Your task to perform on an android device: Add lg ultragear to the cart on bestbuy Image 0: 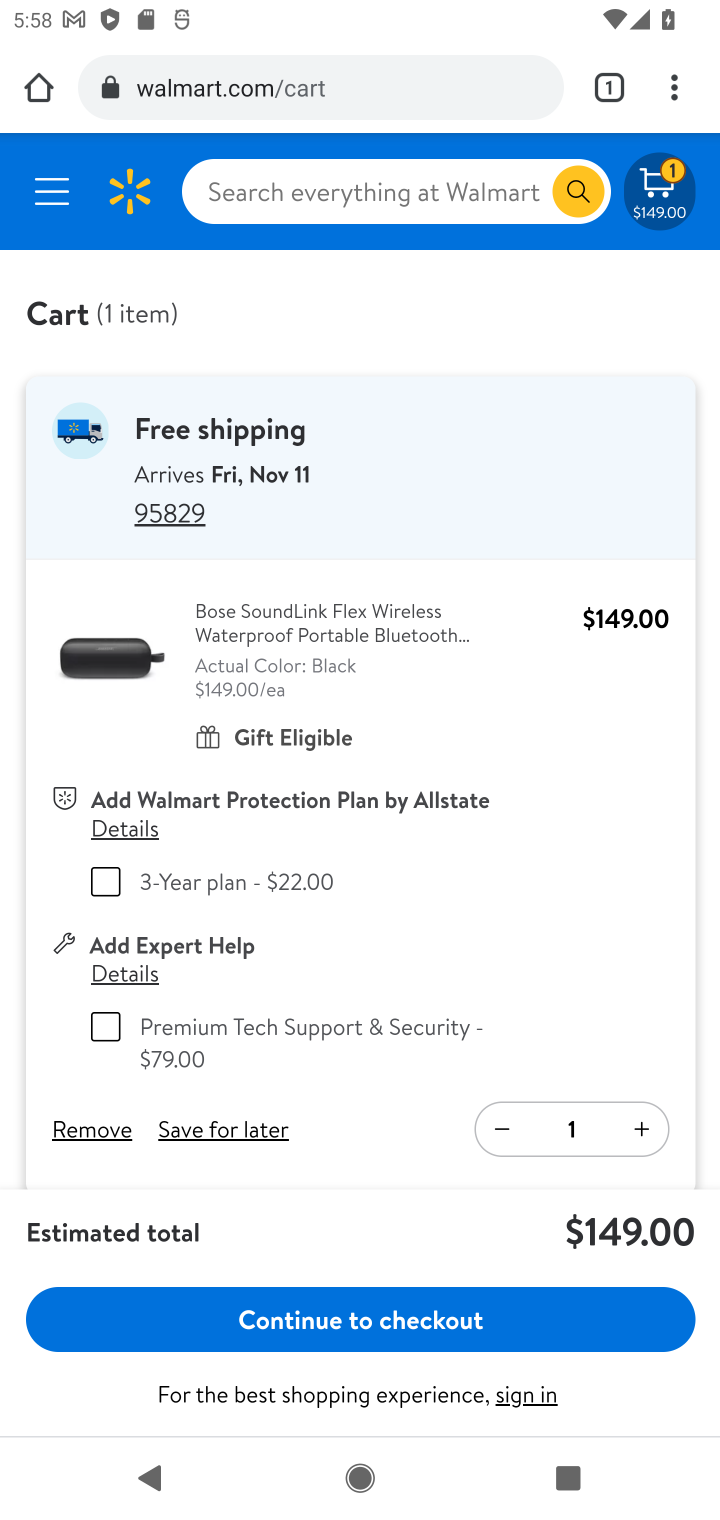
Step 0: click (393, 62)
Your task to perform on an android device: Add lg ultragear to the cart on bestbuy Image 1: 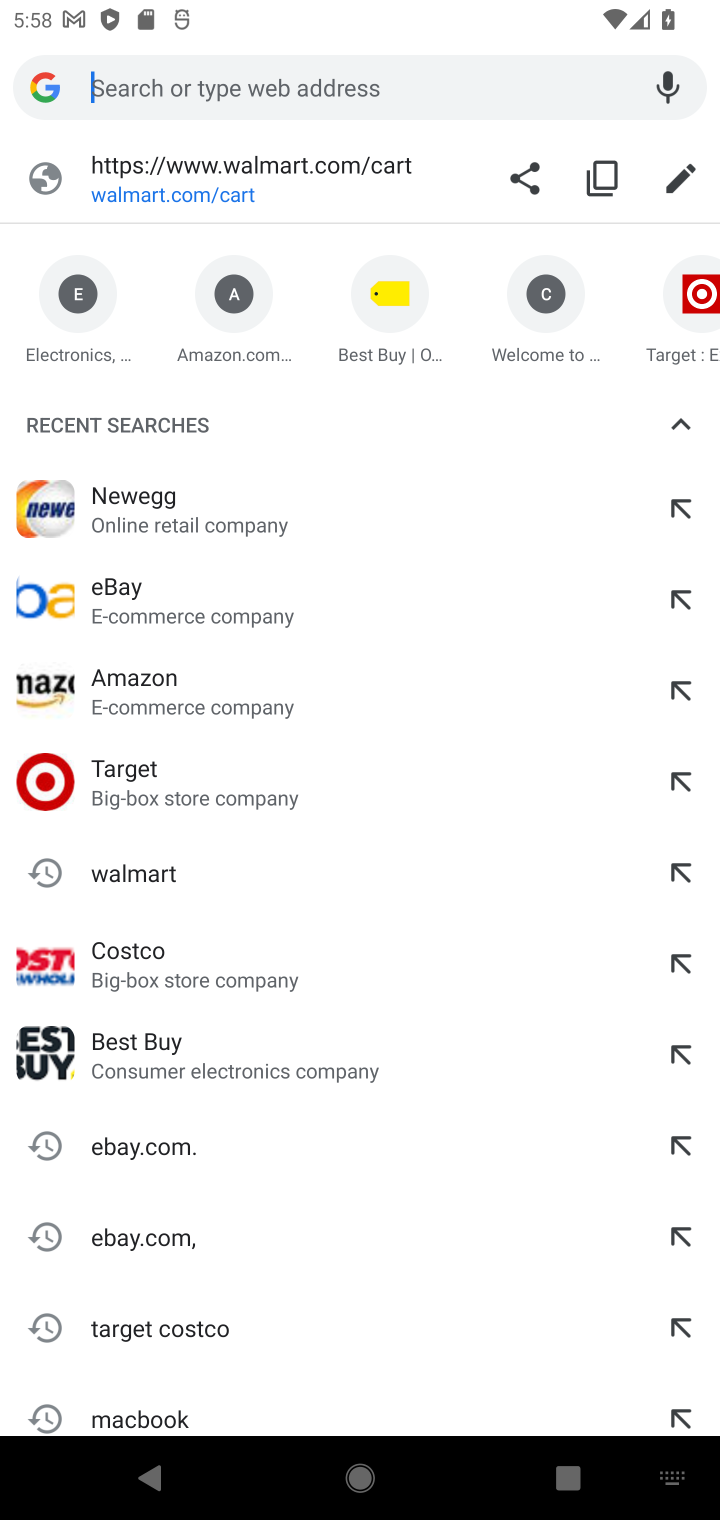
Step 1: type "bestbuy.com"
Your task to perform on an android device: Add lg ultragear to the cart on bestbuy Image 2: 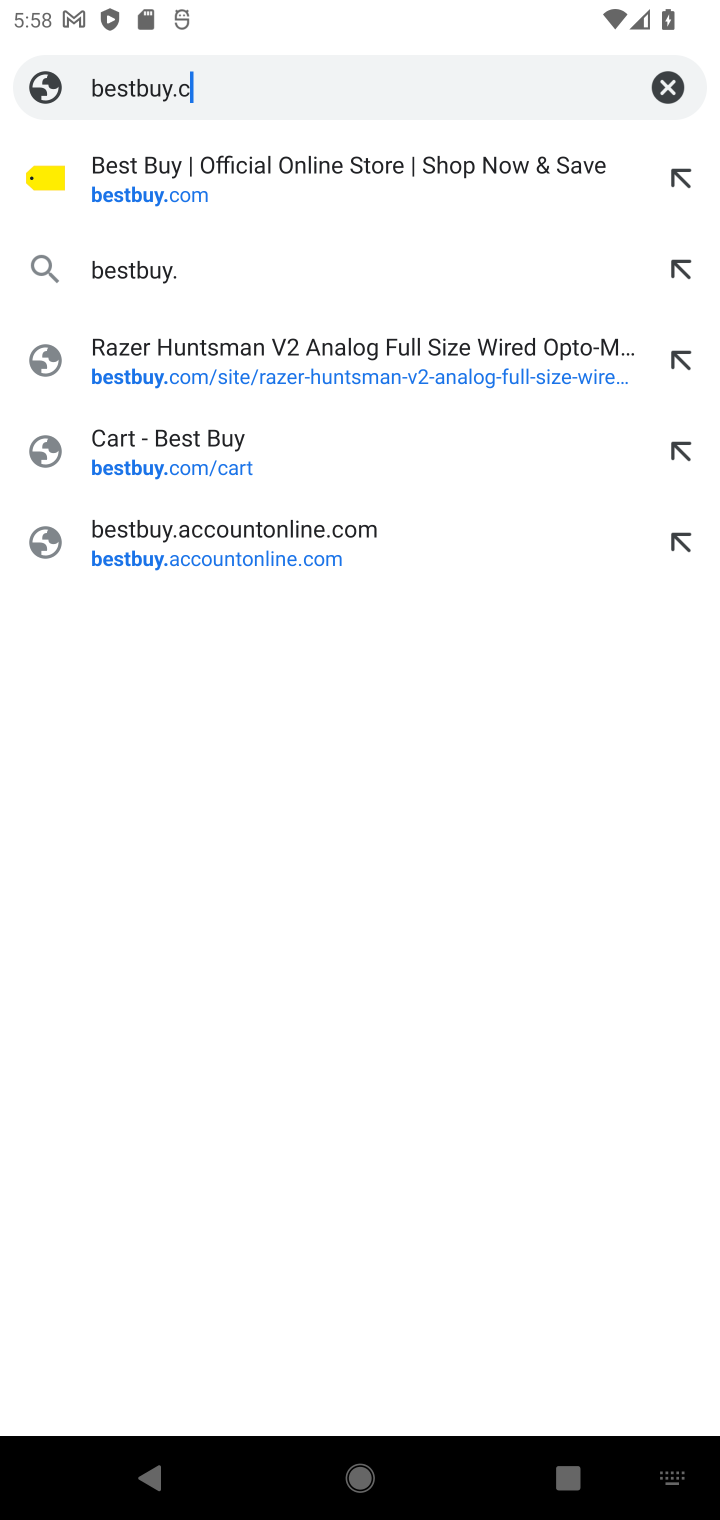
Step 2: press enter
Your task to perform on an android device: Add lg ultragear to the cart on bestbuy Image 3: 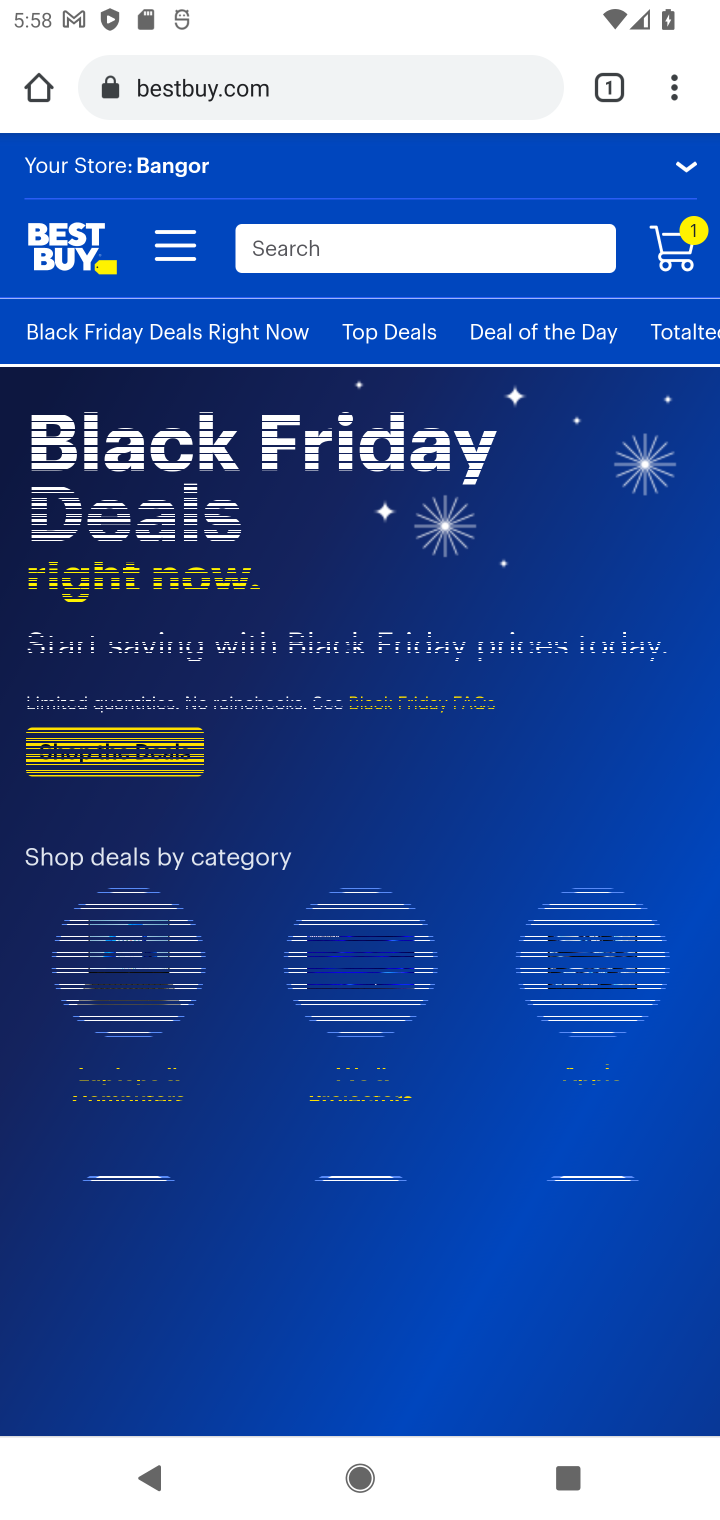
Step 3: click (424, 243)
Your task to perform on an android device: Add lg ultragear to the cart on bestbuy Image 4: 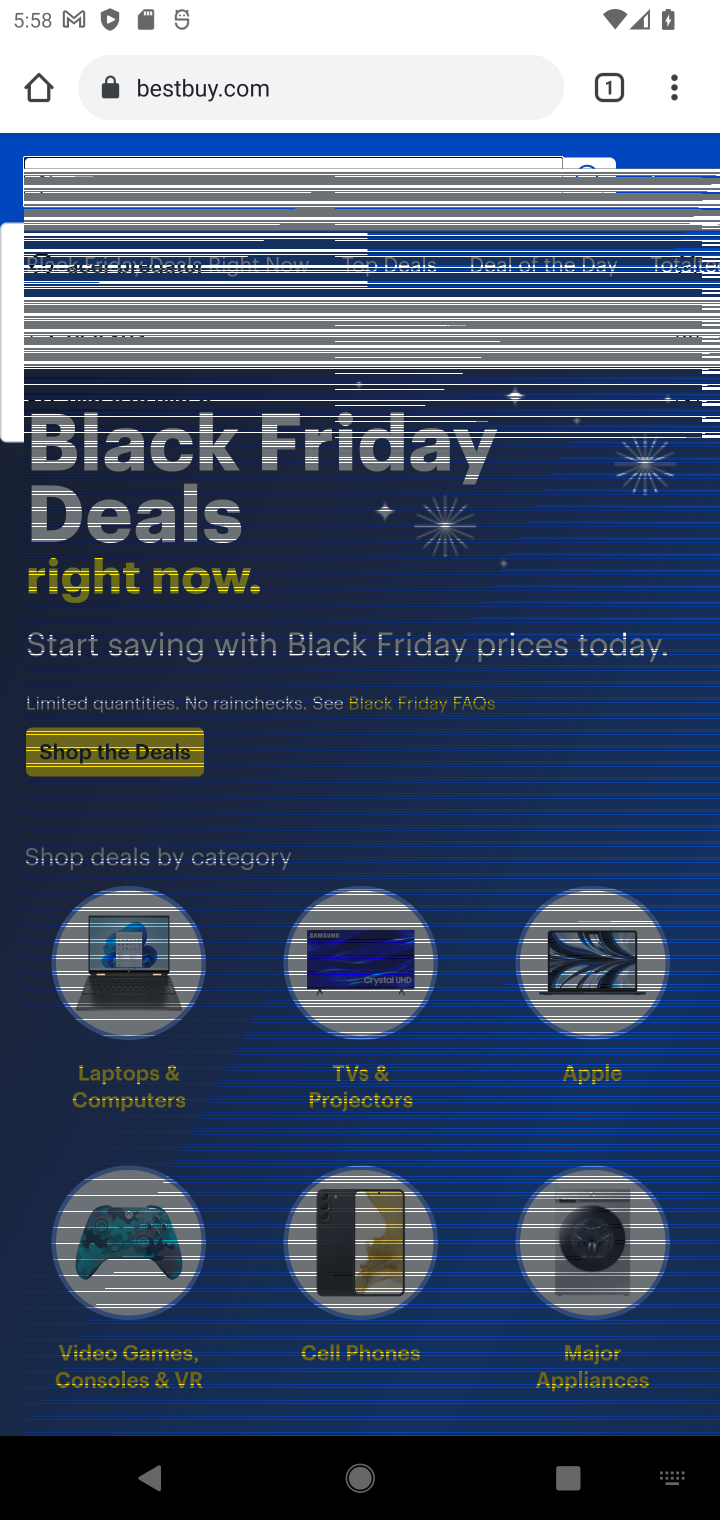
Step 4: type "lg ultragear"
Your task to perform on an android device: Add lg ultragear to the cart on bestbuy Image 5: 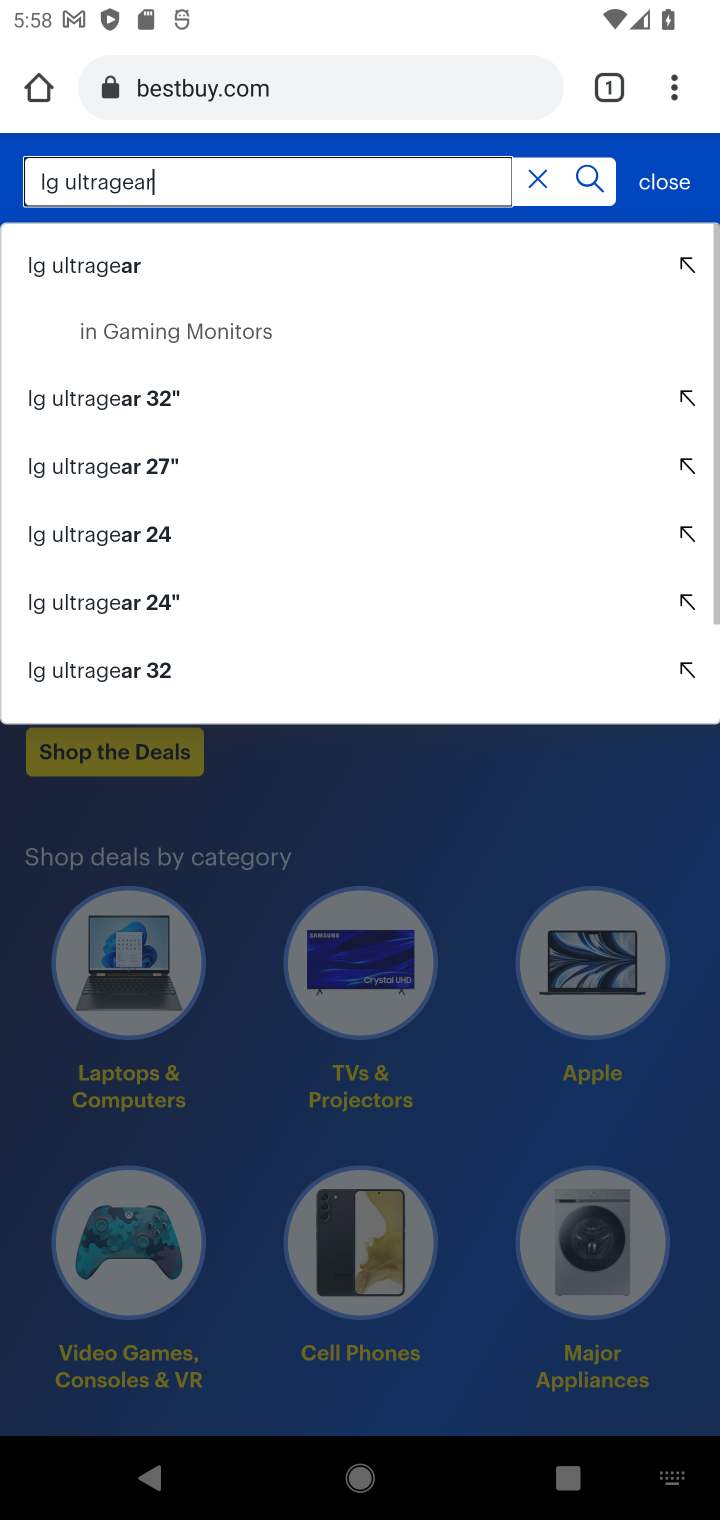
Step 5: press enter
Your task to perform on an android device: Add lg ultragear to the cart on bestbuy Image 6: 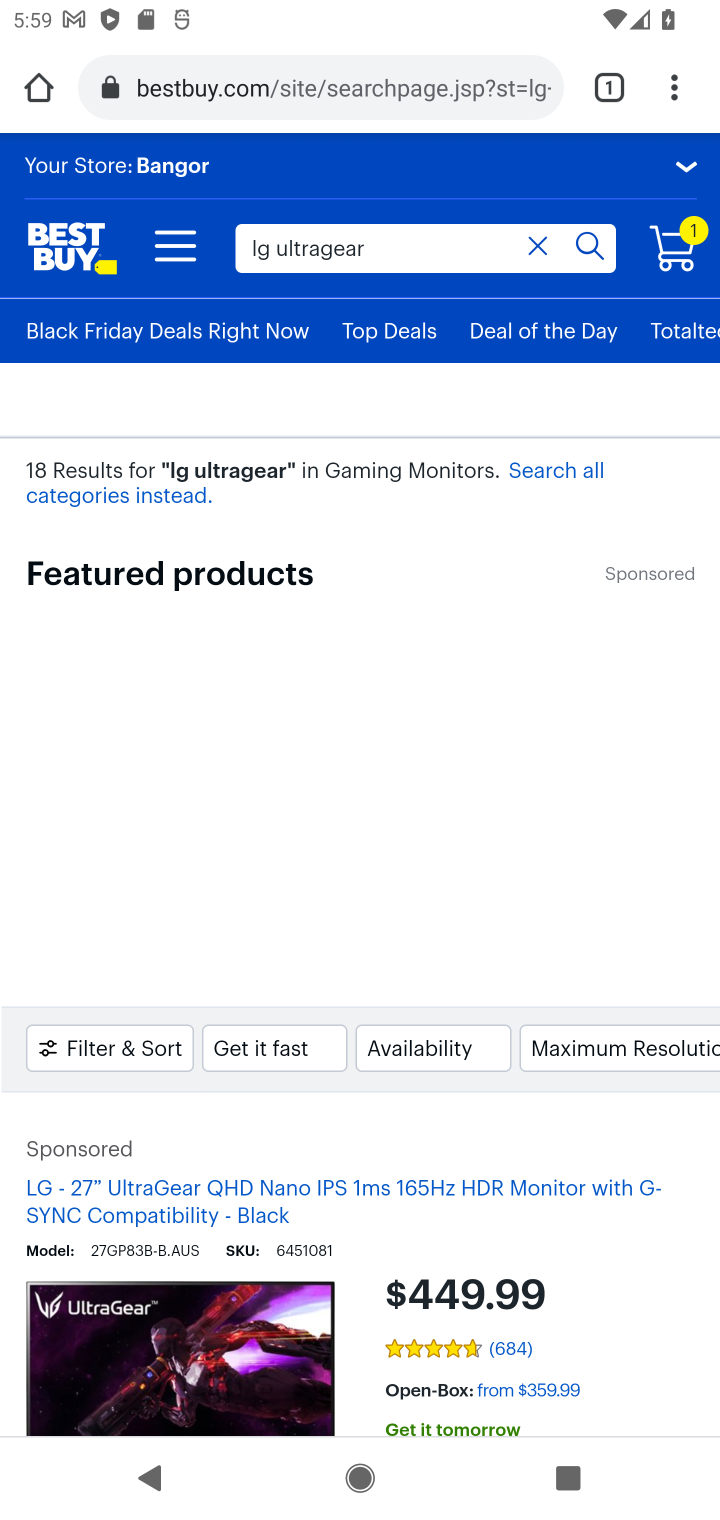
Step 6: drag from (416, 1103) to (341, 295)
Your task to perform on an android device: Add lg ultragear to the cart on bestbuy Image 7: 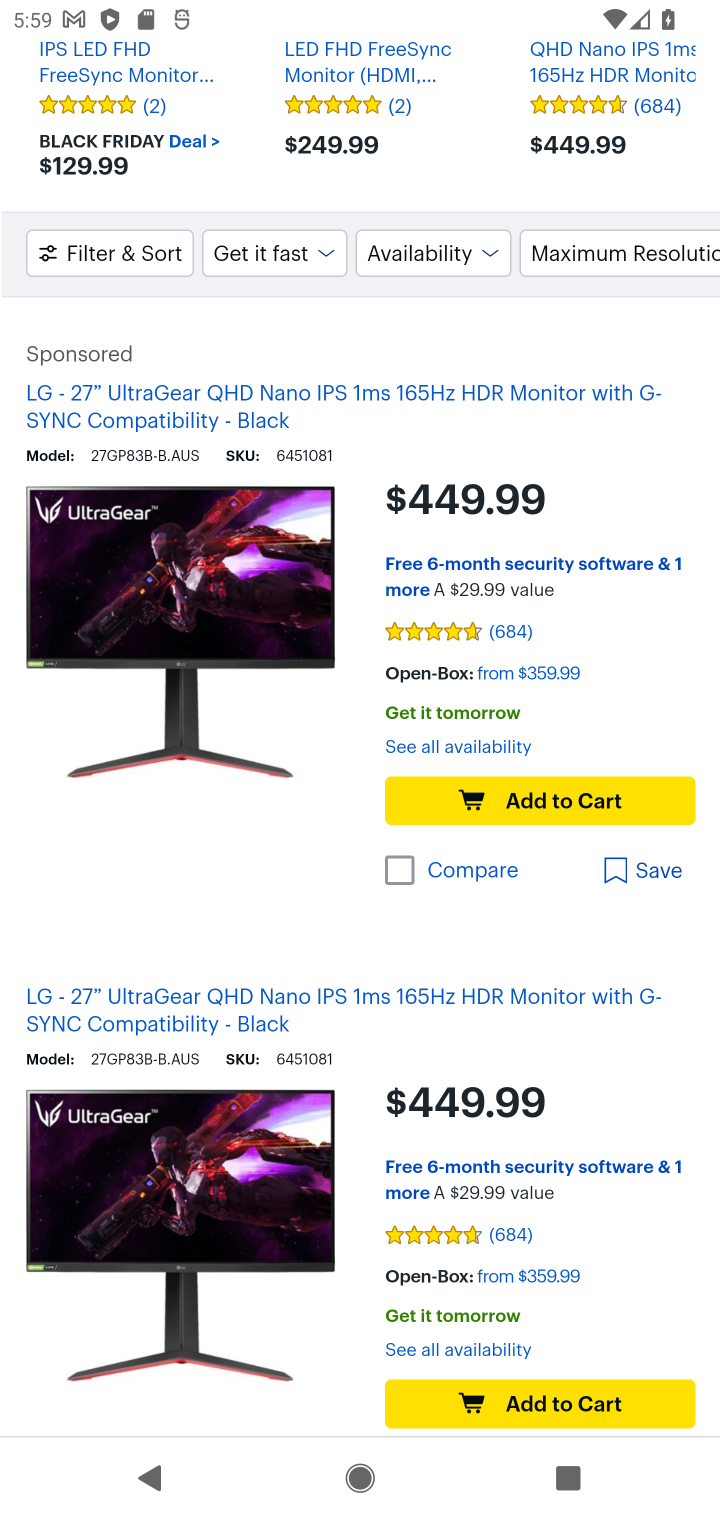
Step 7: click (567, 1355)
Your task to perform on an android device: Add lg ultragear to the cart on bestbuy Image 8: 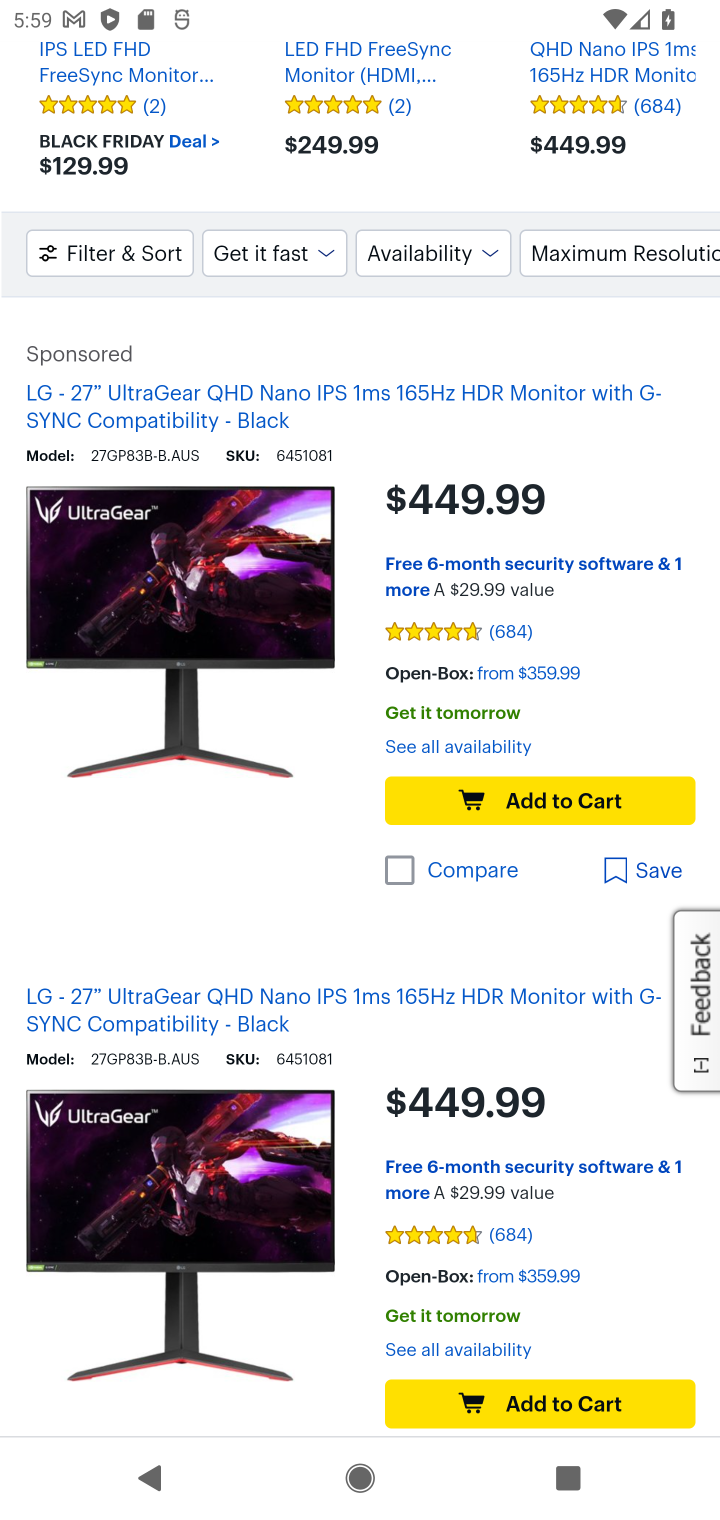
Step 8: click (529, 1404)
Your task to perform on an android device: Add lg ultragear to the cart on bestbuy Image 9: 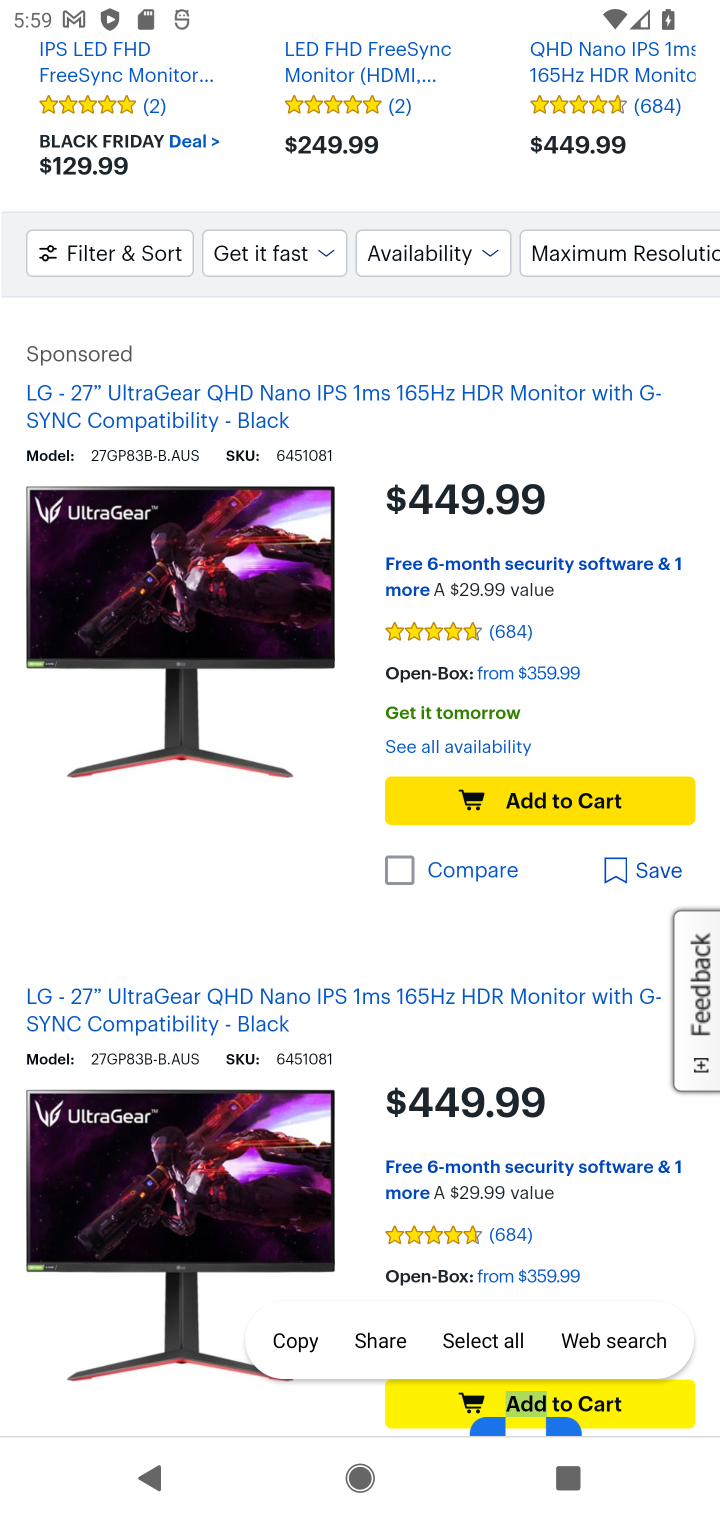
Step 9: click (529, 1404)
Your task to perform on an android device: Add lg ultragear to the cart on bestbuy Image 10: 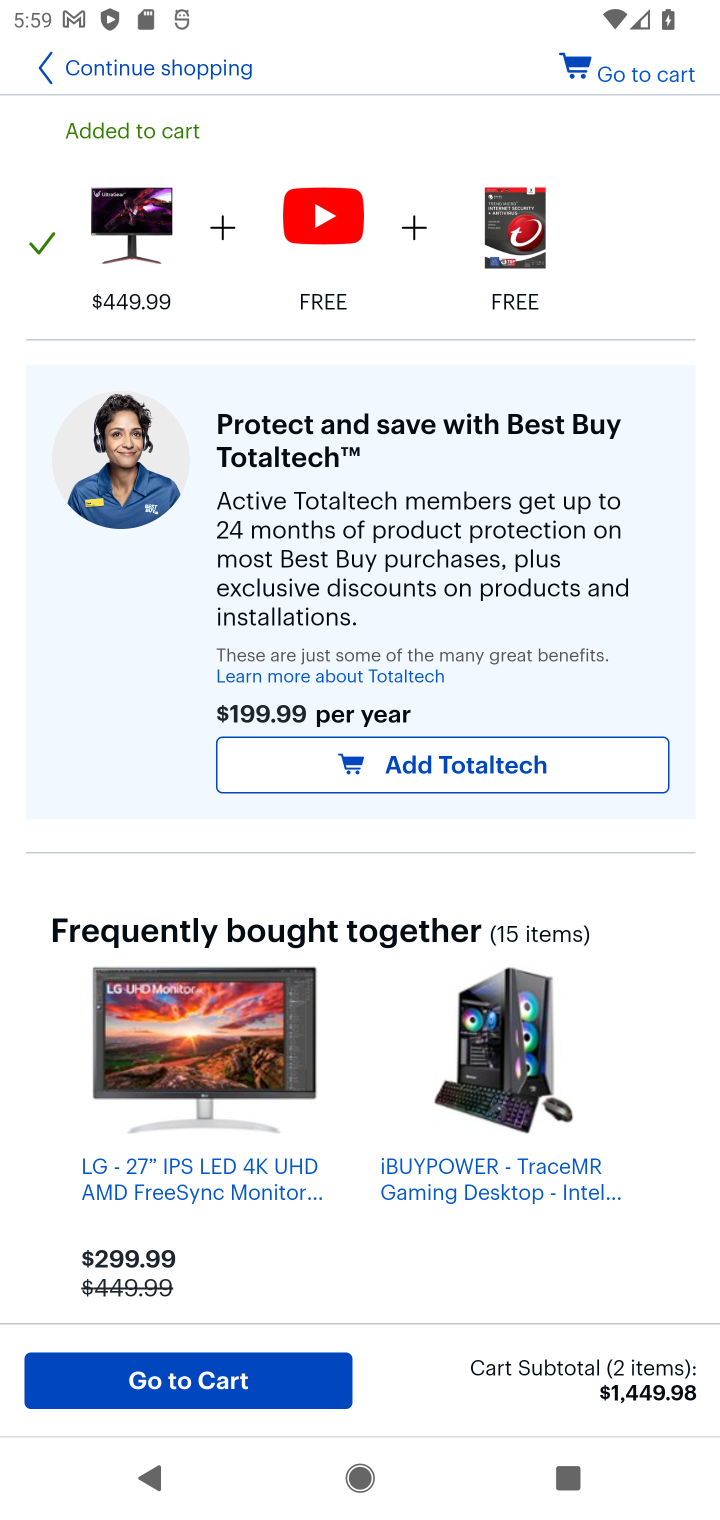
Step 10: task complete